Your task to perform on an android device: change the clock style Image 0: 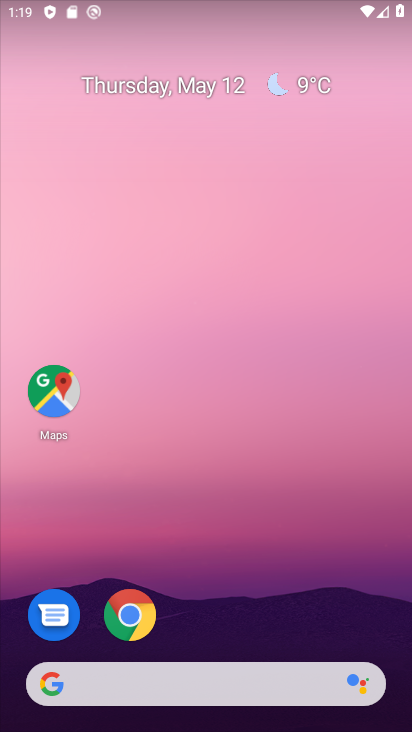
Step 0: drag from (206, 657) to (10, 277)
Your task to perform on an android device: change the clock style Image 1: 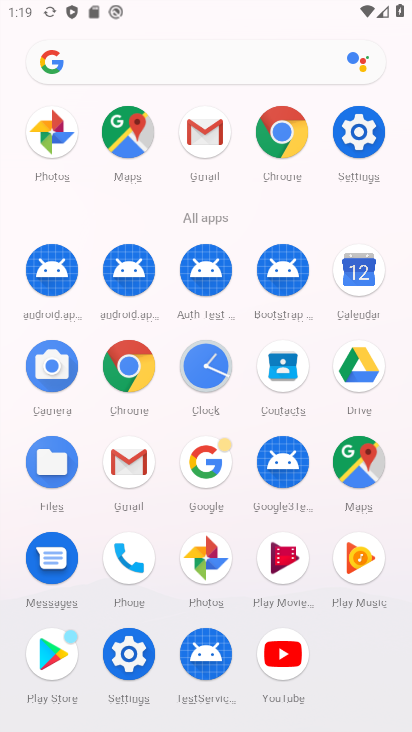
Step 1: click (198, 391)
Your task to perform on an android device: change the clock style Image 2: 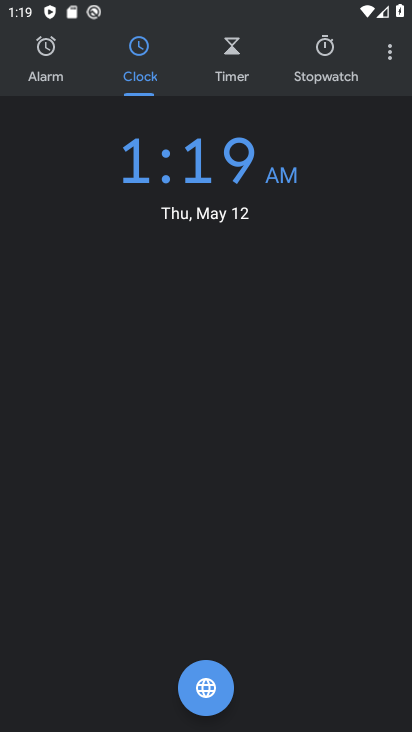
Step 2: click (385, 59)
Your task to perform on an android device: change the clock style Image 3: 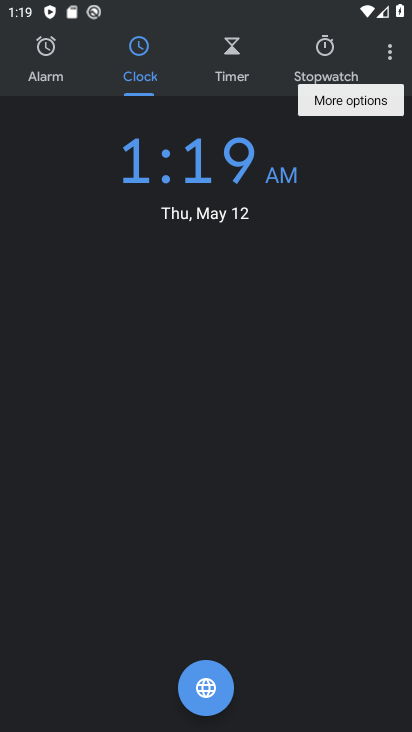
Step 3: click (382, 62)
Your task to perform on an android device: change the clock style Image 4: 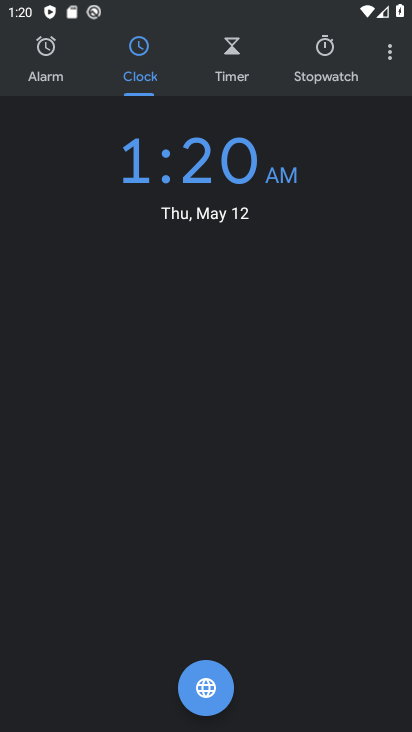
Step 4: click (381, 49)
Your task to perform on an android device: change the clock style Image 5: 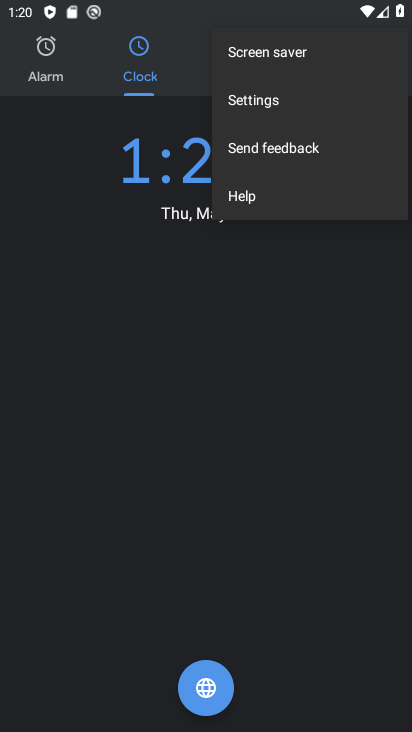
Step 5: click (297, 107)
Your task to perform on an android device: change the clock style Image 6: 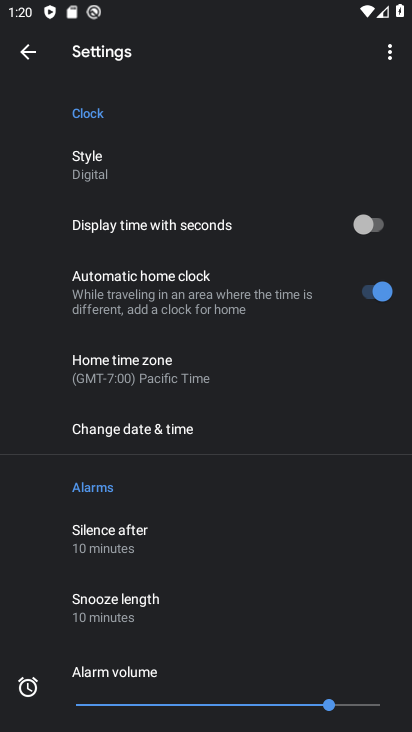
Step 6: click (102, 174)
Your task to perform on an android device: change the clock style Image 7: 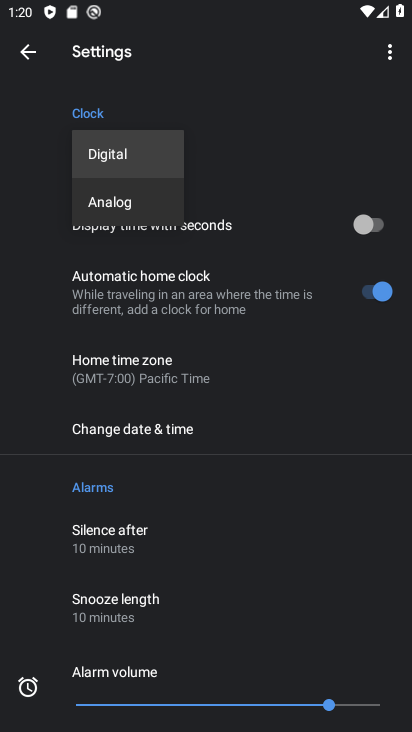
Step 7: click (145, 197)
Your task to perform on an android device: change the clock style Image 8: 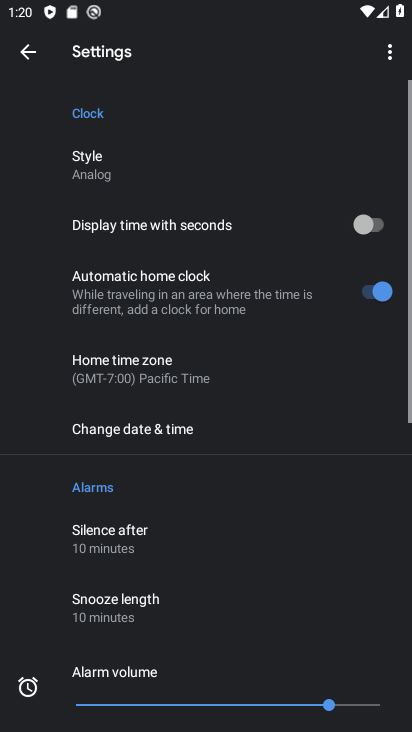
Step 8: task complete